Your task to perform on an android device: Open Yahoo.com Image 0: 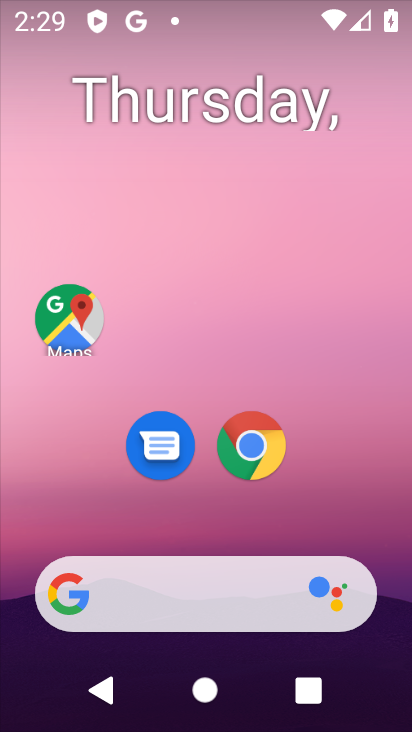
Step 0: click (268, 444)
Your task to perform on an android device: Open Yahoo.com Image 1: 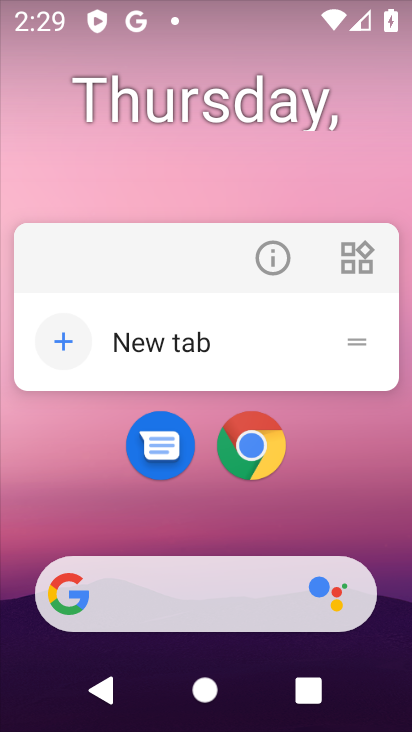
Step 1: click (270, 451)
Your task to perform on an android device: Open Yahoo.com Image 2: 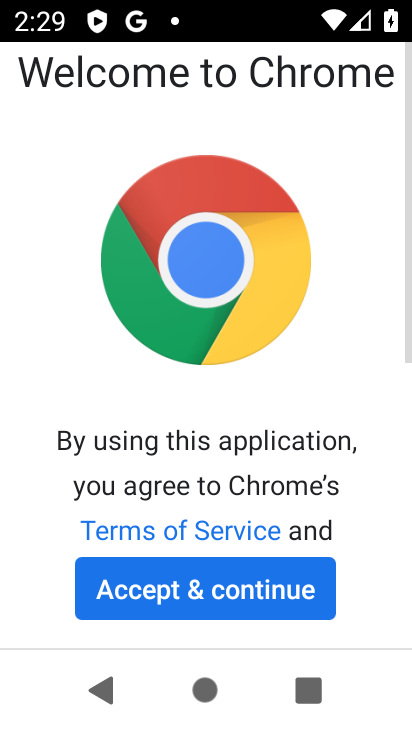
Step 2: click (243, 604)
Your task to perform on an android device: Open Yahoo.com Image 3: 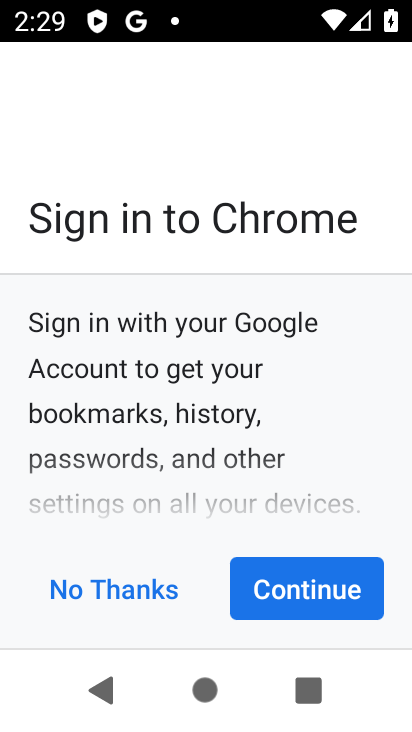
Step 3: click (302, 582)
Your task to perform on an android device: Open Yahoo.com Image 4: 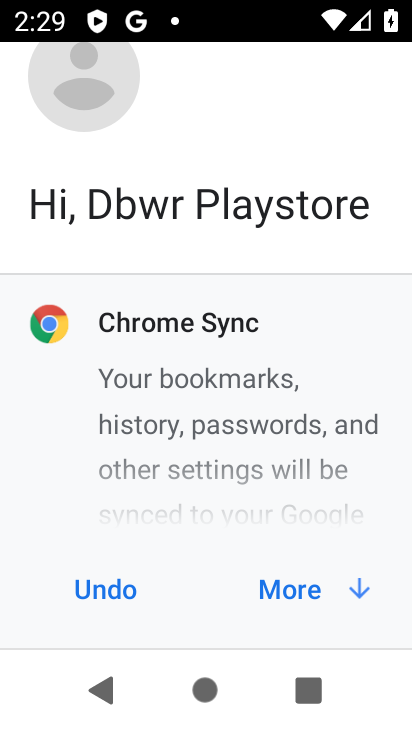
Step 4: click (295, 587)
Your task to perform on an android device: Open Yahoo.com Image 5: 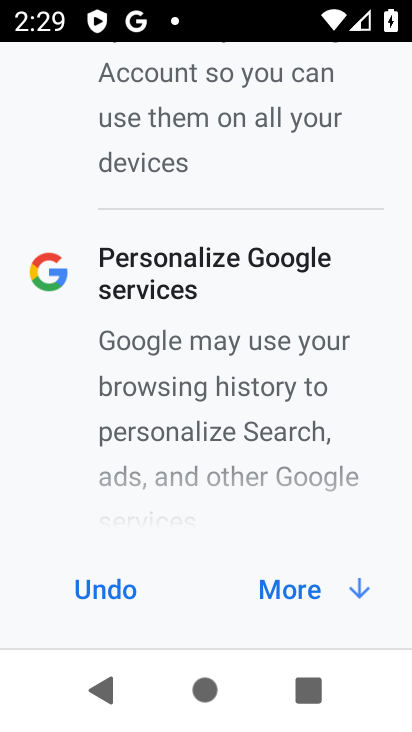
Step 5: click (296, 586)
Your task to perform on an android device: Open Yahoo.com Image 6: 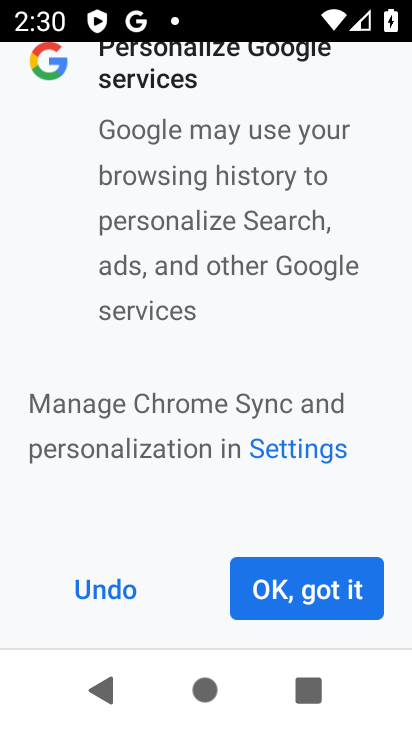
Step 6: click (296, 586)
Your task to perform on an android device: Open Yahoo.com Image 7: 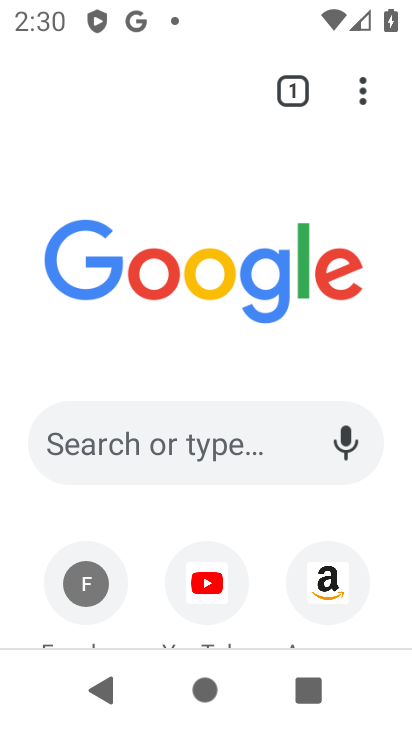
Step 7: drag from (202, 515) to (237, 224)
Your task to perform on an android device: Open Yahoo.com Image 8: 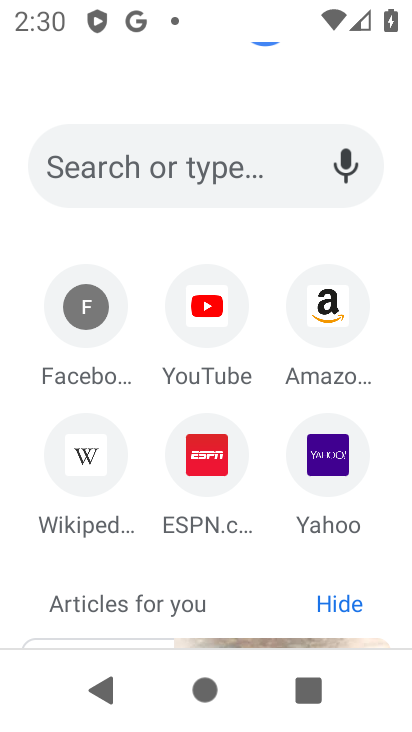
Step 8: click (310, 483)
Your task to perform on an android device: Open Yahoo.com Image 9: 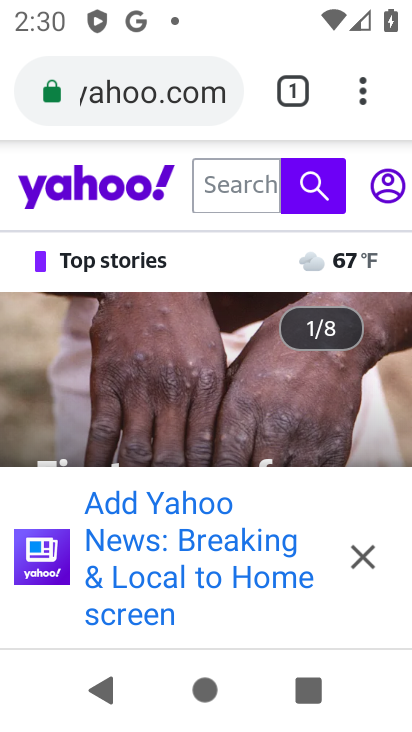
Step 9: task complete